Your task to perform on an android device: Go to Android settings Image 0: 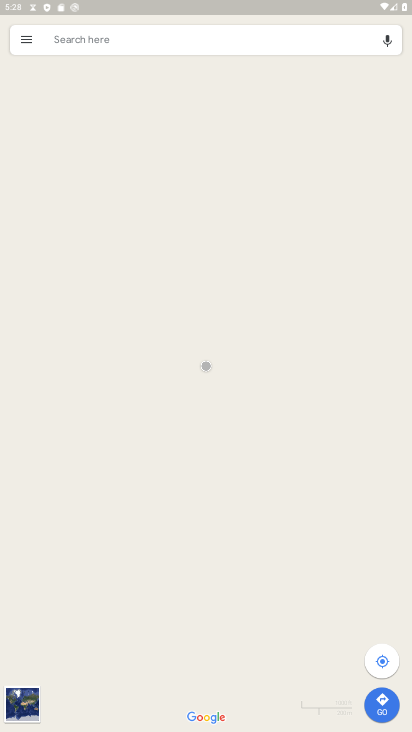
Step 0: press home button
Your task to perform on an android device: Go to Android settings Image 1: 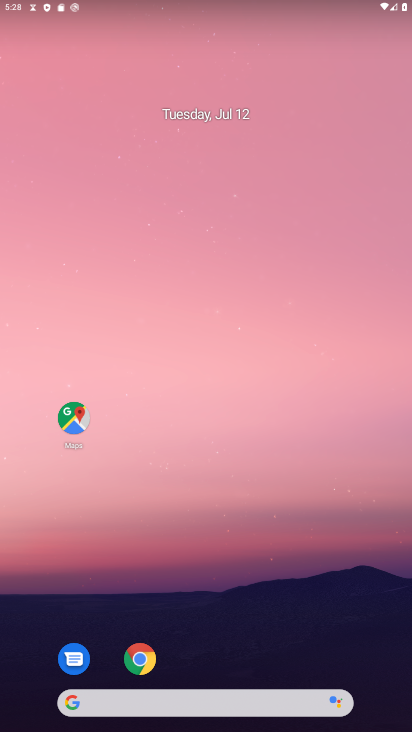
Step 1: drag from (252, 643) to (283, 12)
Your task to perform on an android device: Go to Android settings Image 2: 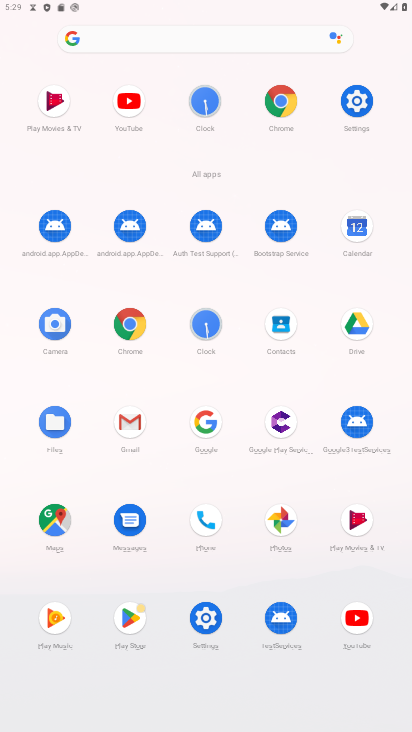
Step 2: click (203, 632)
Your task to perform on an android device: Go to Android settings Image 3: 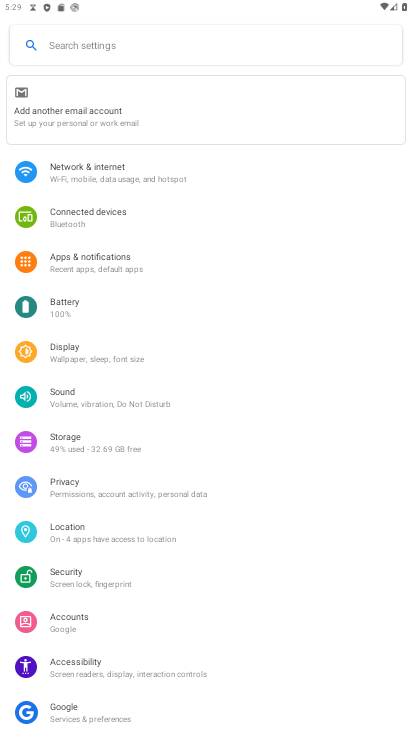
Step 3: drag from (158, 684) to (173, 323)
Your task to perform on an android device: Go to Android settings Image 4: 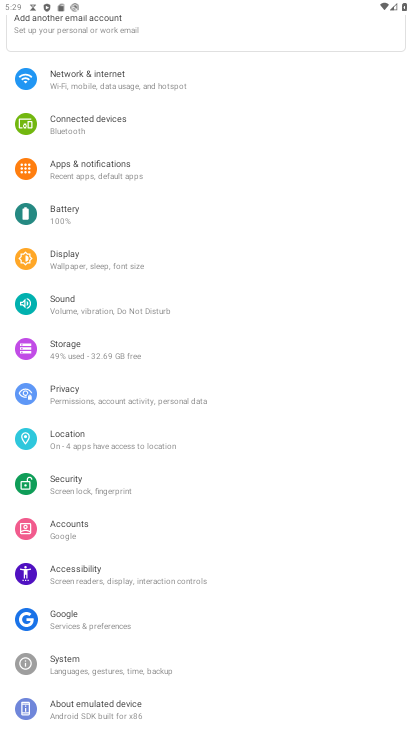
Step 4: click (92, 704)
Your task to perform on an android device: Go to Android settings Image 5: 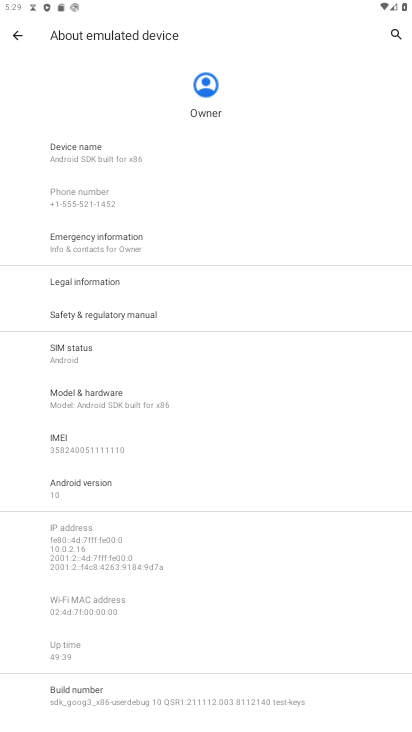
Step 5: click (112, 487)
Your task to perform on an android device: Go to Android settings Image 6: 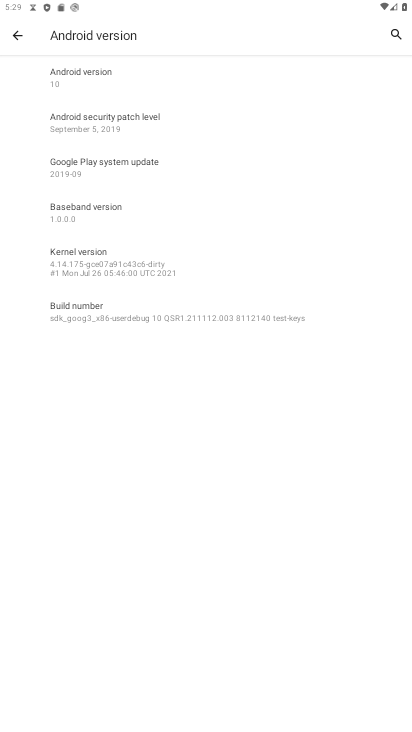
Step 6: task complete